Your task to perform on an android device: star an email in the gmail app Image 0: 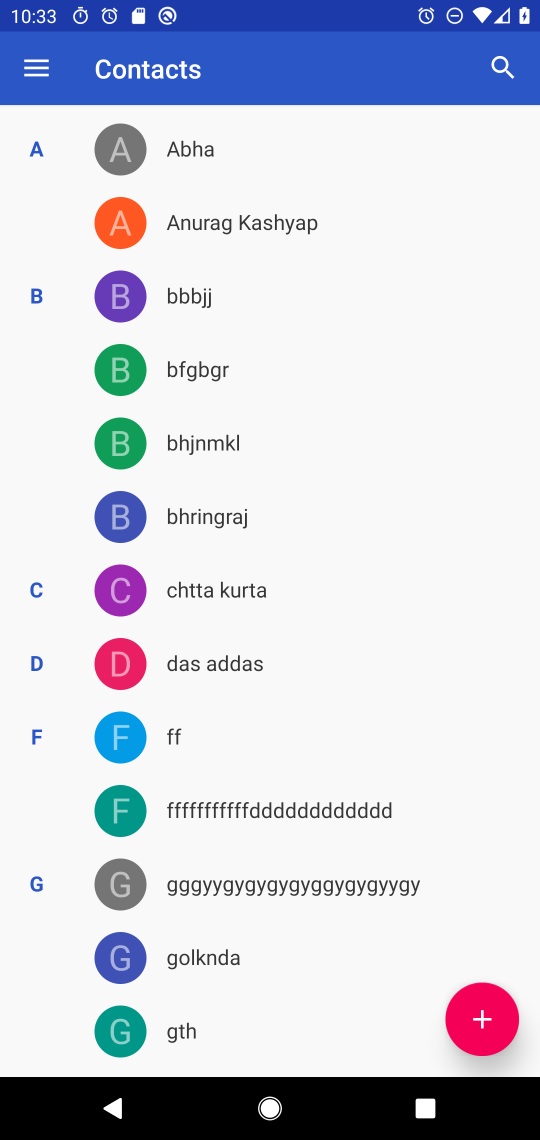
Step 0: press home button
Your task to perform on an android device: star an email in the gmail app Image 1: 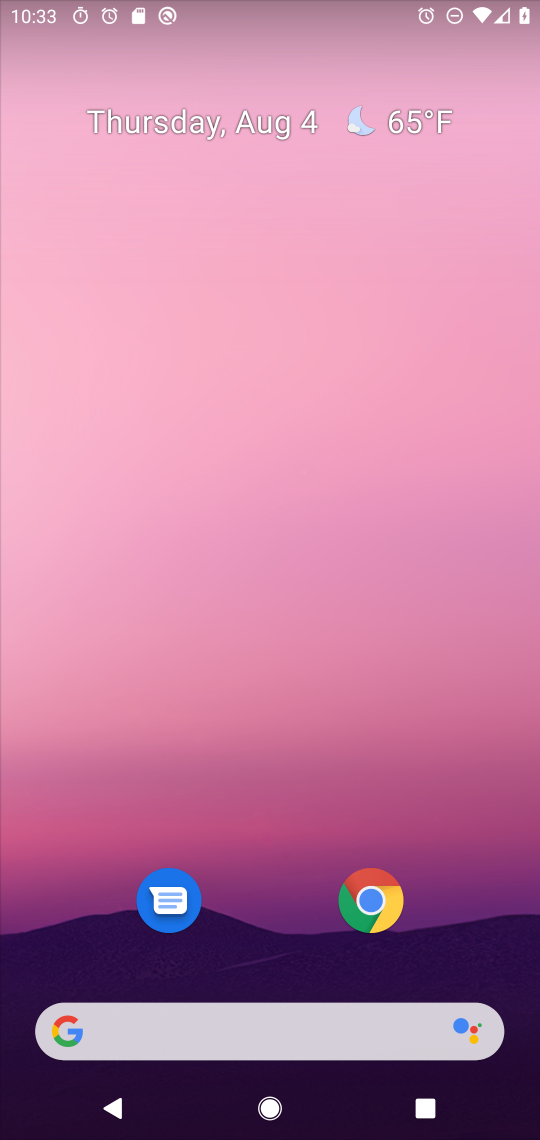
Step 1: drag from (195, 1032) to (218, 54)
Your task to perform on an android device: star an email in the gmail app Image 2: 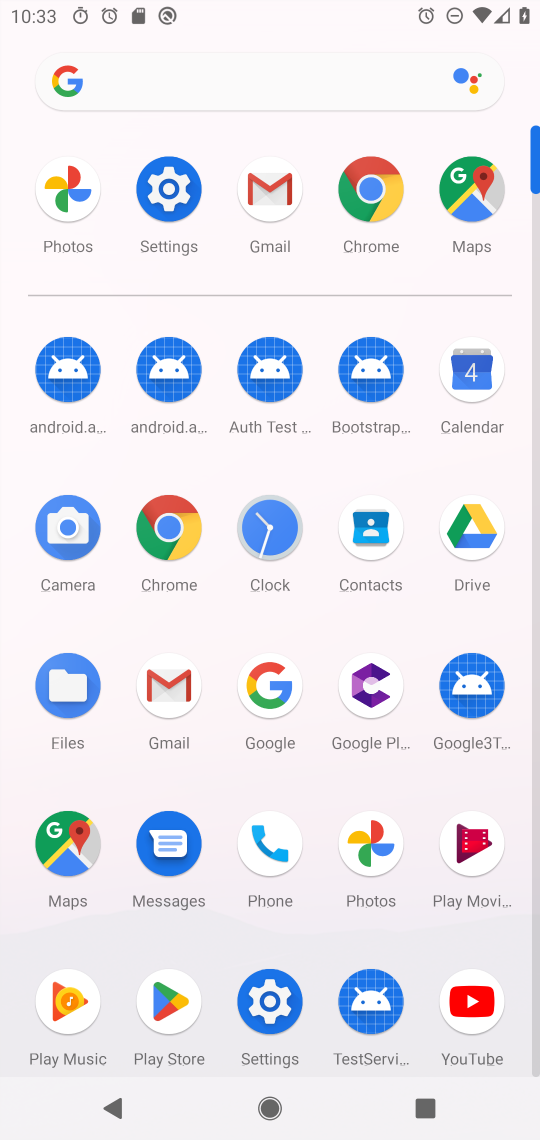
Step 2: click (270, 188)
Your task to perform on an android device: star an email in the gmail app Image 3: 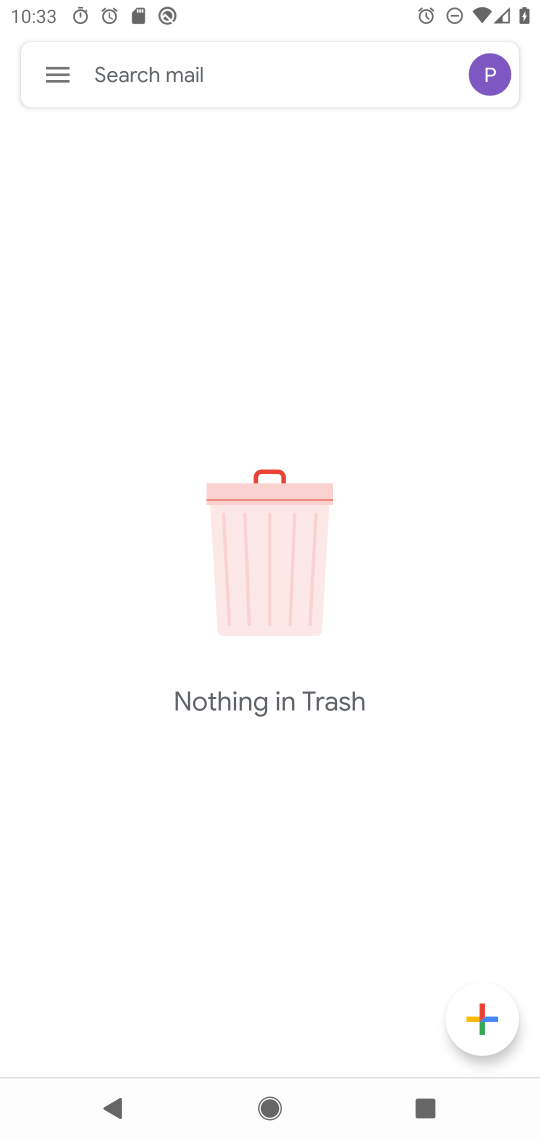
Step 3: click (55, 76)
Your task to perform on an android device: star an email in the gmail app Image 4: 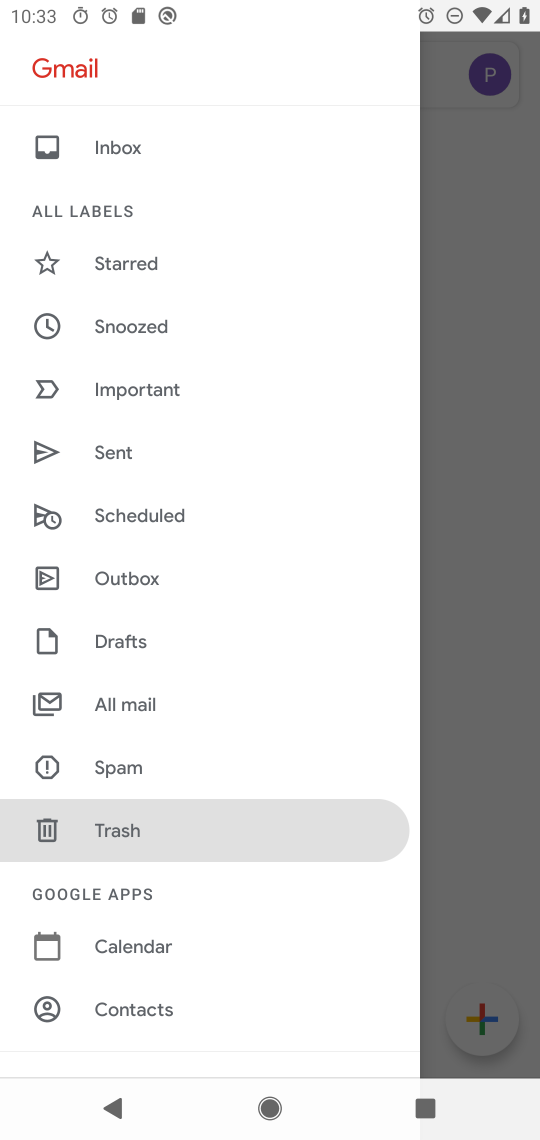
Step 4: click (100, 145)
Your task to perform on an android device: star an email in the gmail app Image 5: 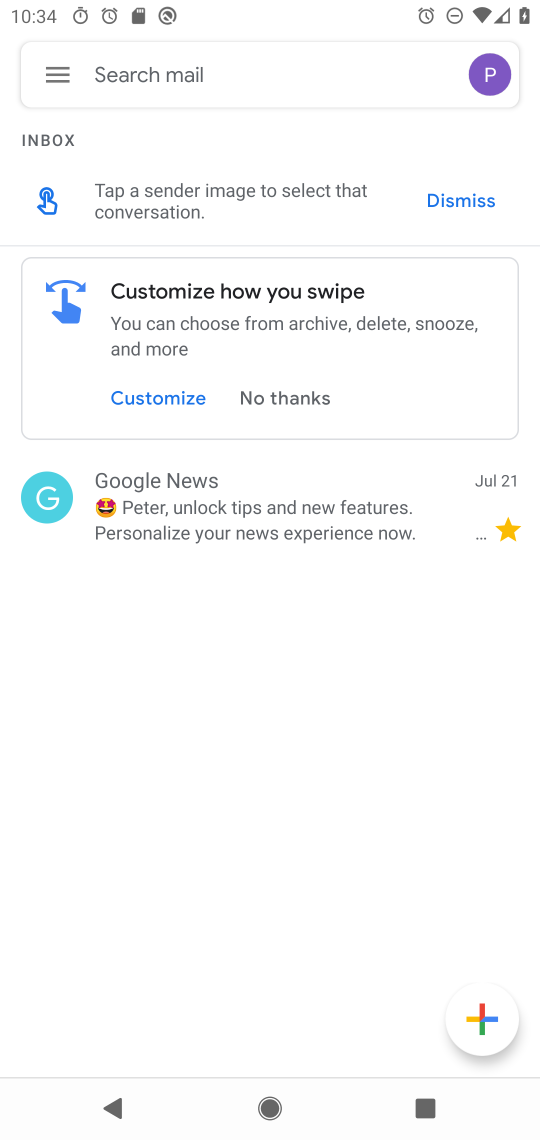
Step 5: task complete